Your task to perform on an android device: Open wifi settings Image 0: 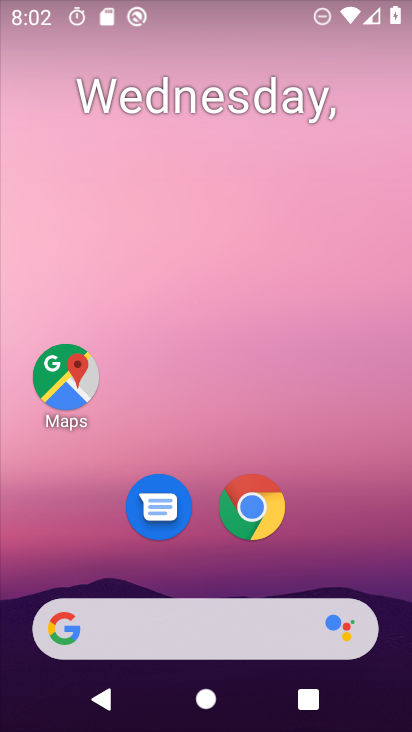
Step 0: drag from (290, 215) to (308, 157)
Your task to perform on an android device: Open wifi settings Image 1: 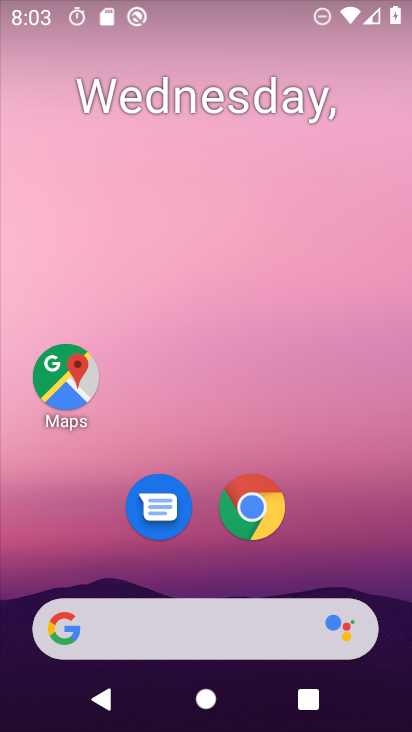
Step 1: drag from (214, 644) to (292, 50)
Your task to perform on an android device: Open wifi settings Image 2: 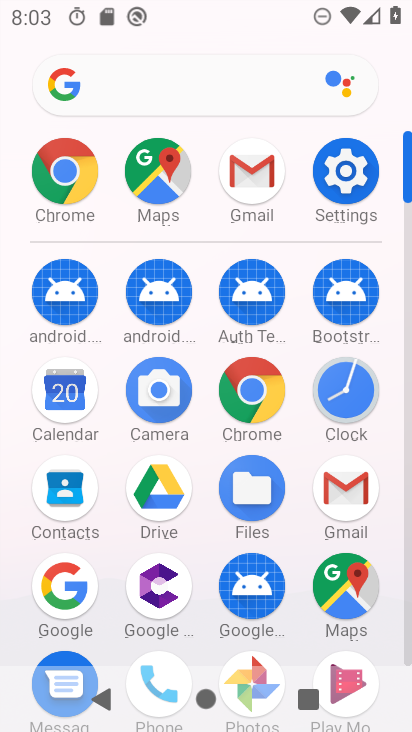
Step 2: click (342, 193)
Your task to perform on an android device: Open wifi settings Image 3: 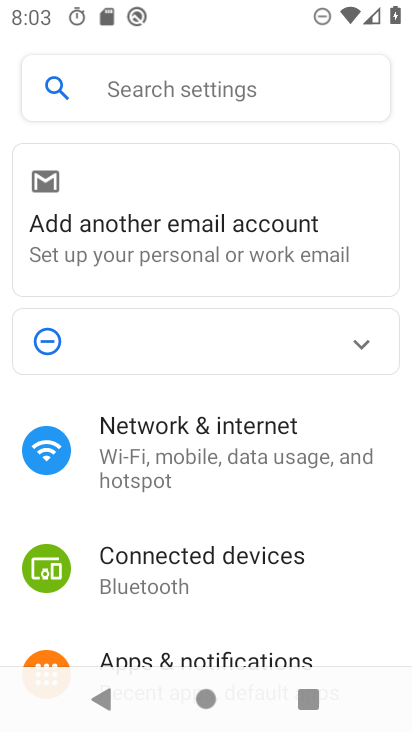
Step 3: click (153, 430)
Your task to perform on an android device: Open wifi settings Image 4: 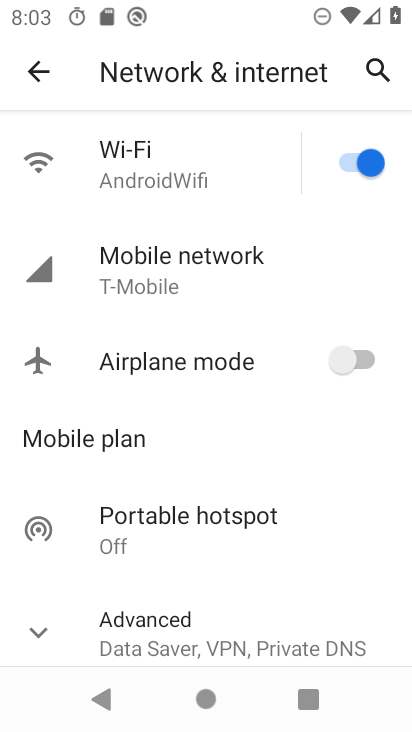
Step 4: click (186, 174)
Your task to perform on an android device: Open wifi settings Image 5: 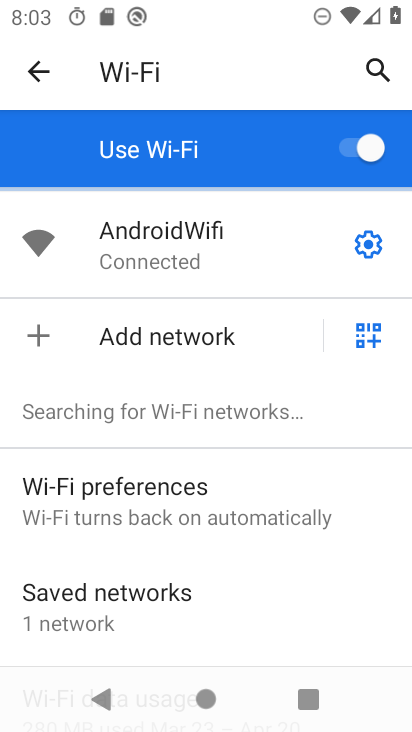
Step 5: task complete